Your task to perform on an android device: Search for Mexican restaurants on Maps Image 0: 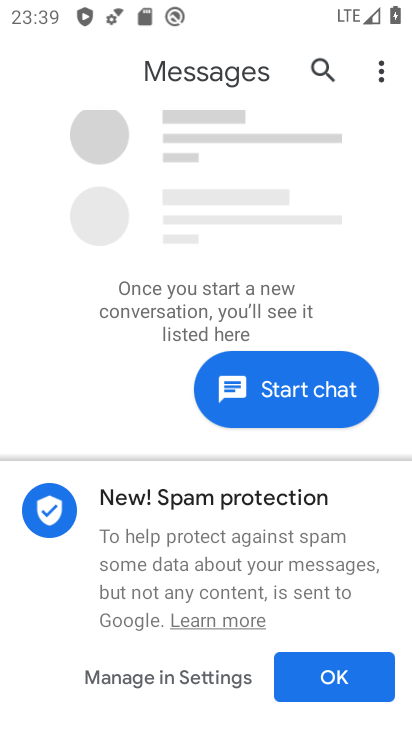
Step 0: press home button
Your task to perform on an android device: Search for Mexican restaurants on Maps Image 1: 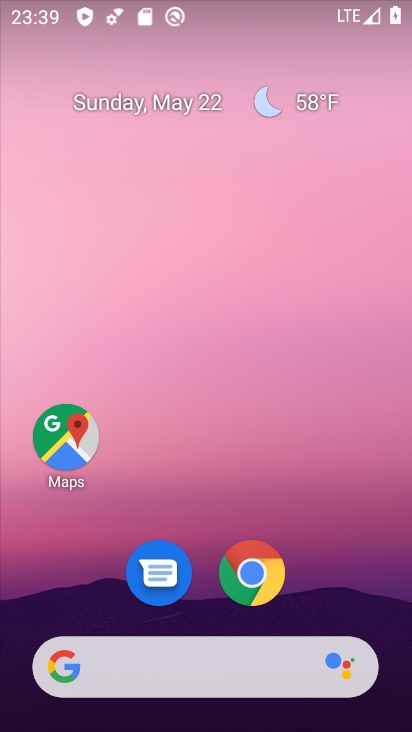
Step 1: click (59, 378)
Your task to perform on an android device: Search for Mexican restaurants on Maps Image 2: 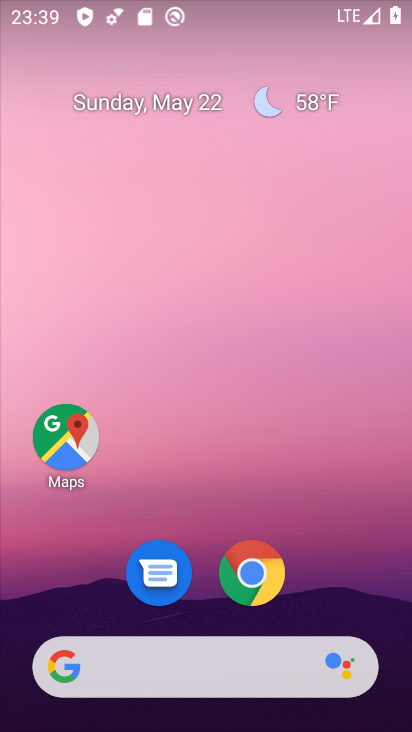
Step 2: click (84, 441)
Your task to perform on an android device: Search for Mexican restaurants on Maps Image 3: 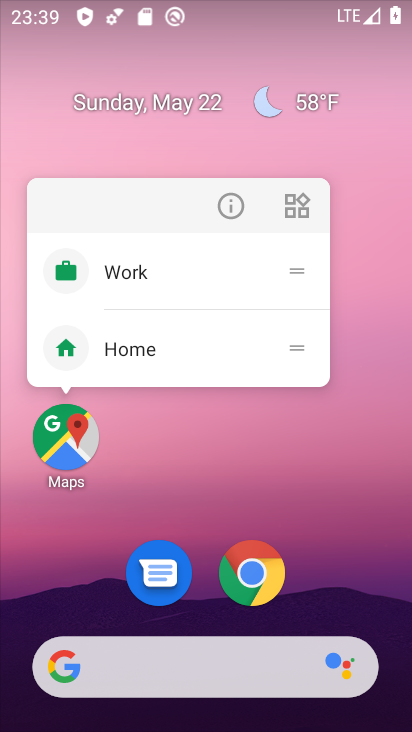
Step 3: click (73, 444)
Your task to perform on an android device: Search for Mexican restaurants on Maps Image 4: 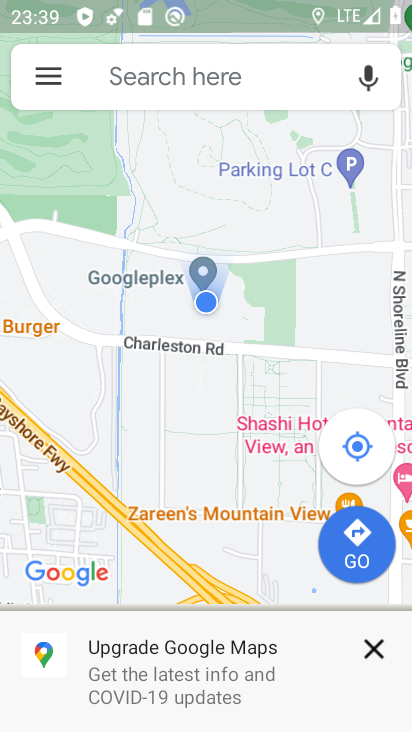
Step 4: click (166, 78)
Your task to perform on an android device: Search for Mexican restaurants on Maps Image 5: 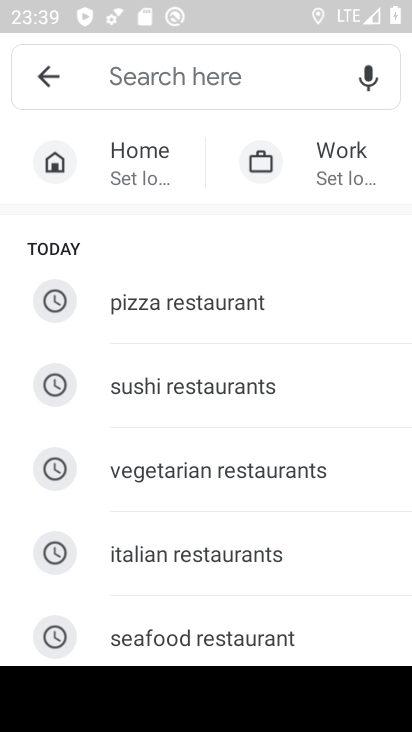
Step 5: type "Mexican restaurants"
Your task to perform on an android device: Search for Mexican restaurants on Maps Image 6: 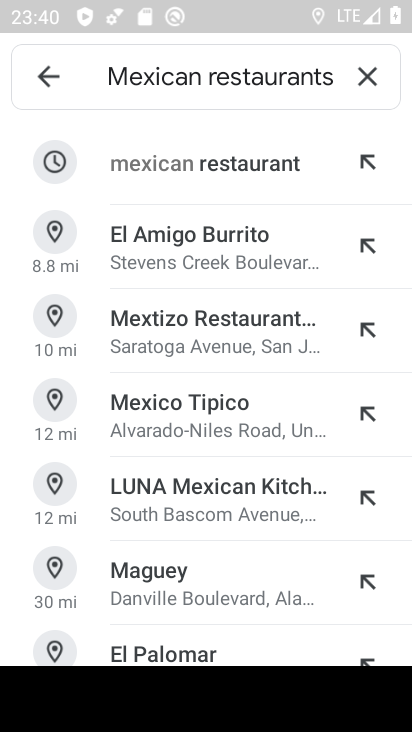
Step 6: click (240, 168)
Your task to perform on an android device: Search for Mexican restaurants on Maps Image 7: 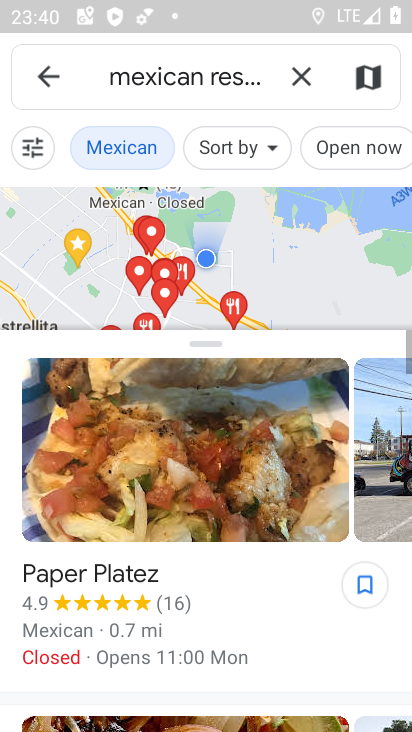
Step 7: task complete